Your task to perform on an android device: set an alarm Image 0: 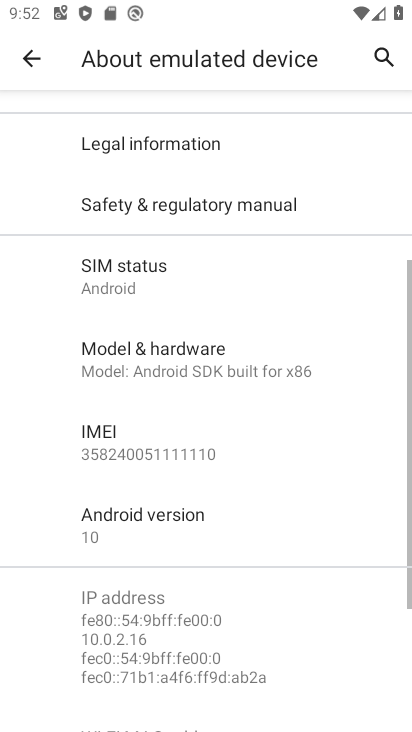
Step 0: press back button
Your task to perform on an android device: set an alarm Image 1: 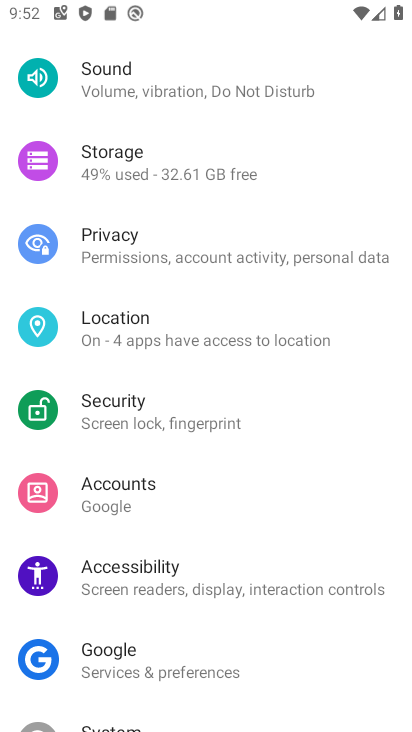
Step 1: press back button
Your task to perform on an android device: set an alarm Image 2: 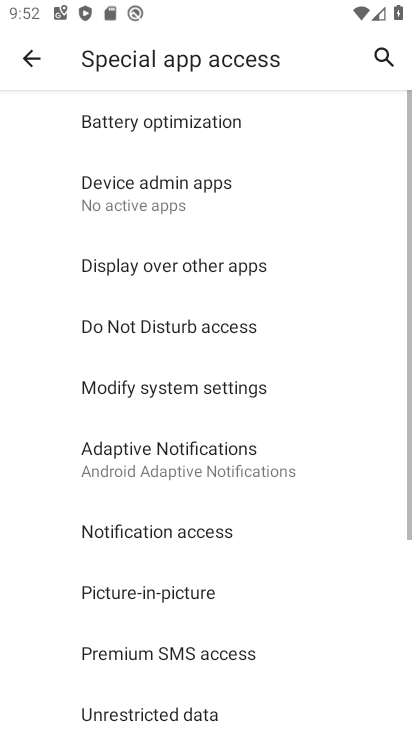
Step 2: press home button
Your task to perform on an android device: set an alarm Image 3: 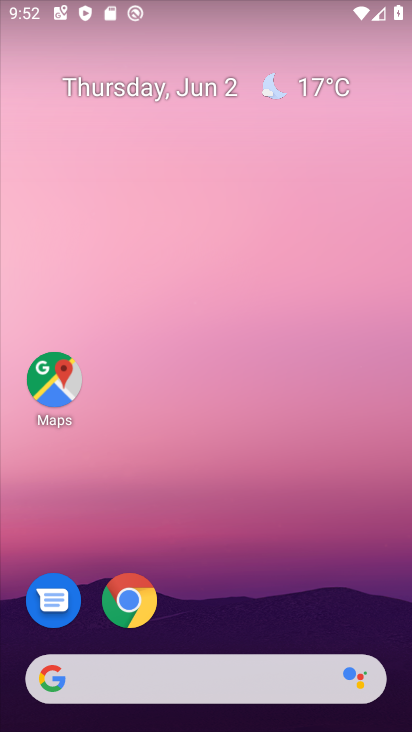
Step 3: drag from (289, 567) to (22, 147)
Your task to perform on an android device: set an alarm Image 4: 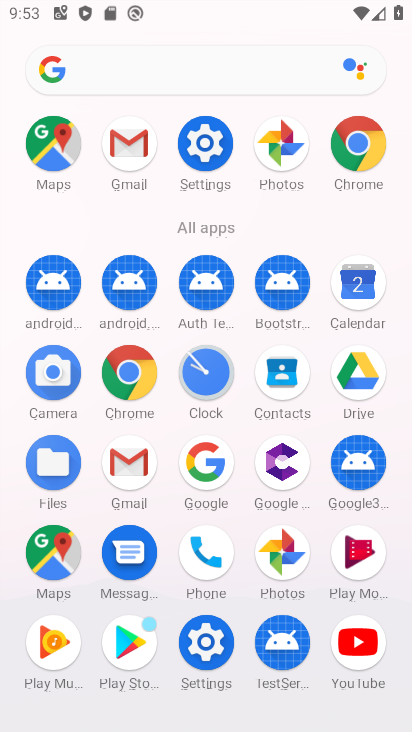
Step 4: click (206, 369)
Your task to perform on an android device: set an alarm Image 5: 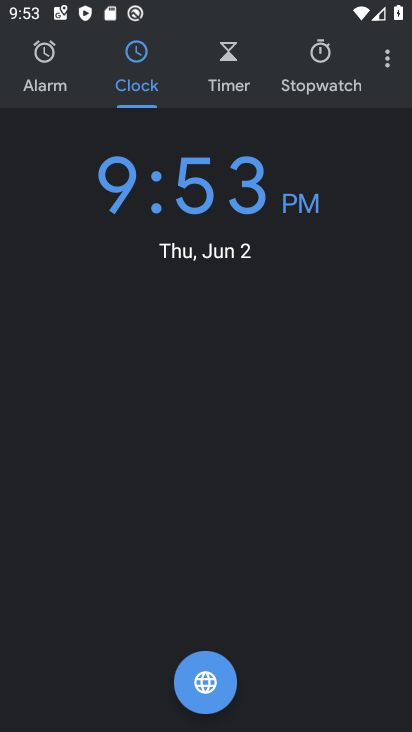
Step 5: click (53, 67)
Your task to perform on an android device: set an alarm Image 6: 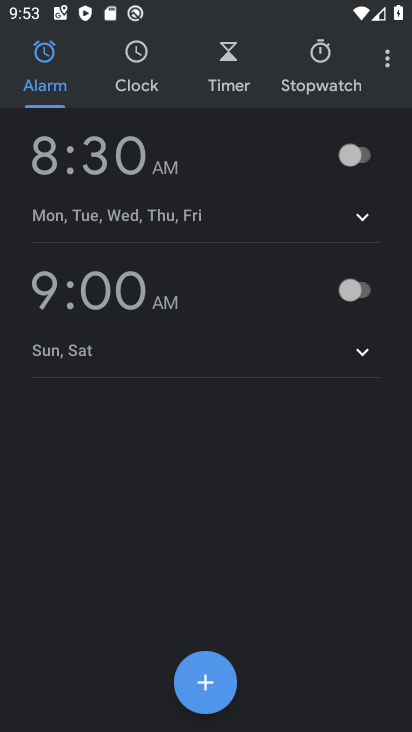
Step 6: click (197, 665)
Your task to perform on an android device: set an alarm Image 7: 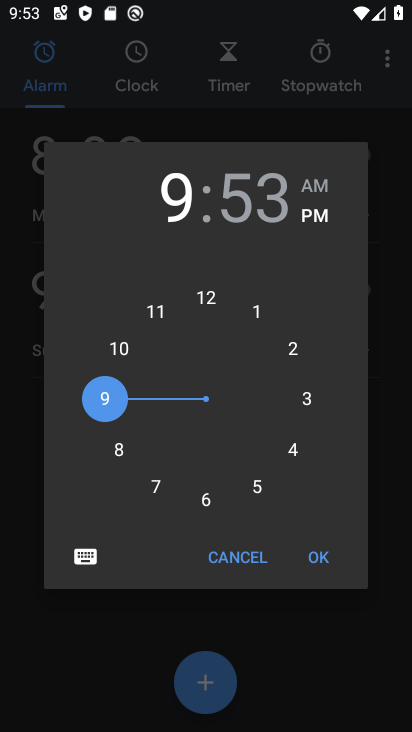
Step 7: click (305, 559)
Your task to perform on an android device: set an alarm Image 8: 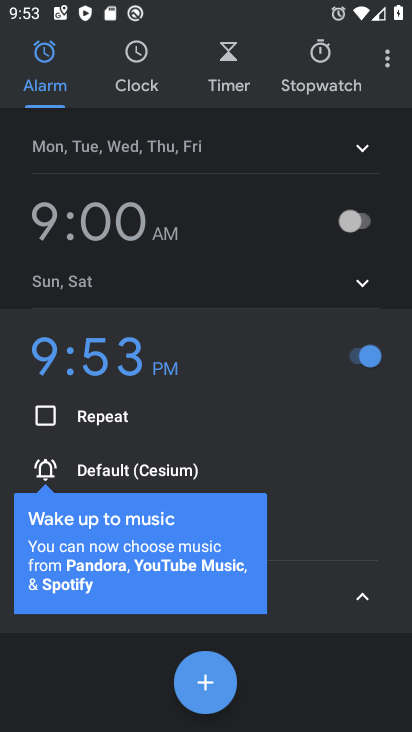
Step 8: task complete